Your task to perform on an android device: add a contact in the contacts app Image 0: 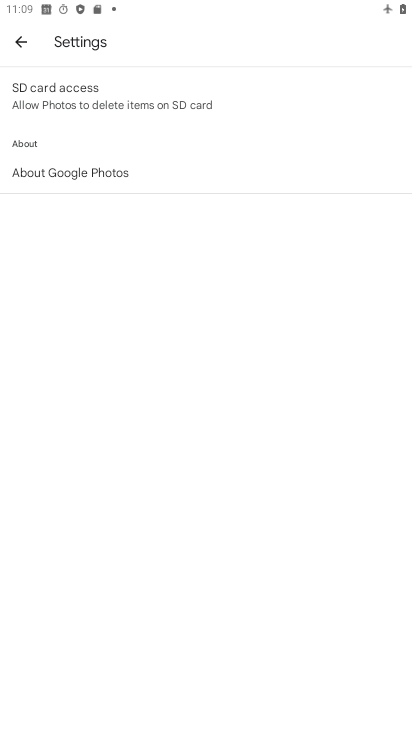
Step 0: press home button
Your task to perform on an android device: add a contact in the contacts app Image 1: 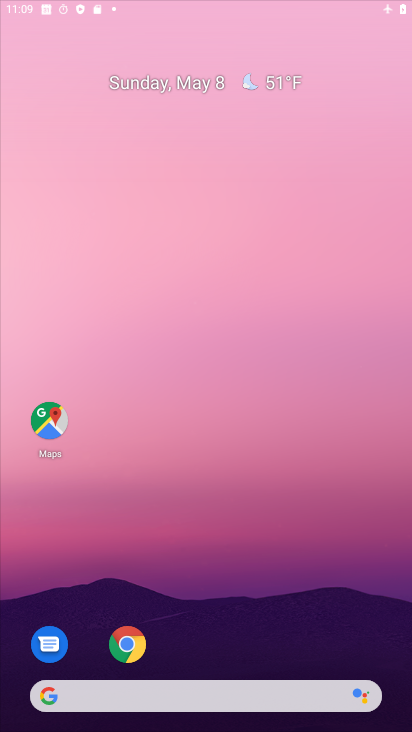
Step 1: drag from (172, 670) to (273, 313)
Your task to perform on an android device: add a contact in the contacts app Image 2: 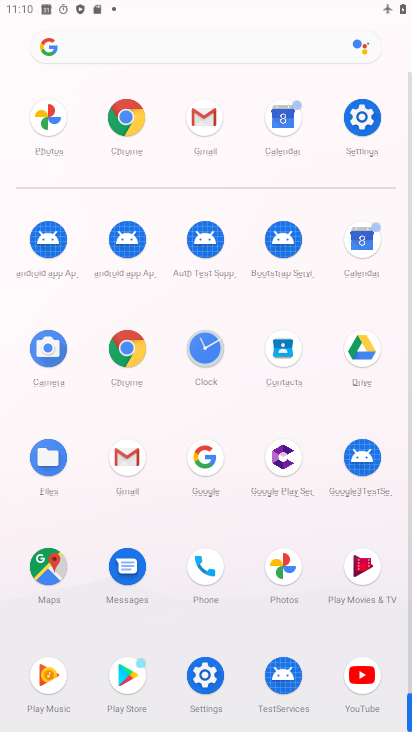
Step 2: click (286, 347)
Your task to perform on an android device: add a contact in the contacts app Image 3: 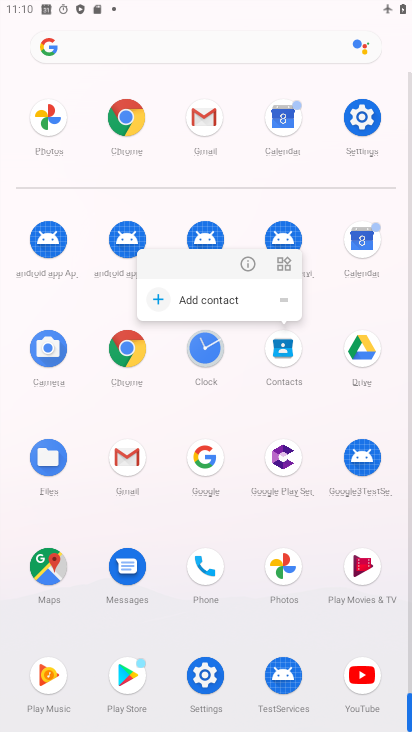
Step 3: click (241, 257)
Your task to perform on an android device: add a contact in the contacts app Image 4: 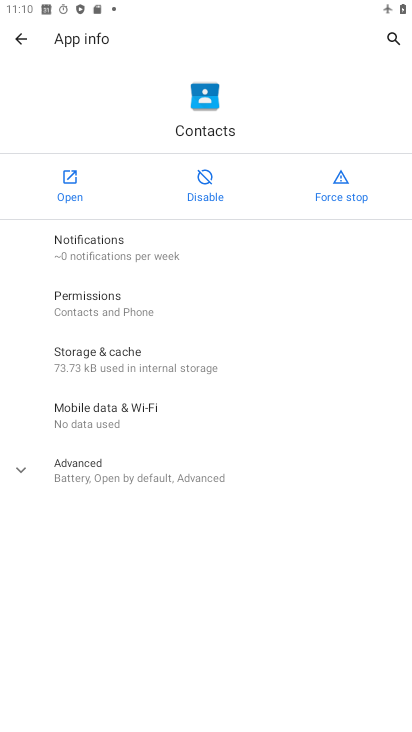
Step 4: click (78, 180)
Your task to perform on an android device: add a contact in the contacts app Image 5: 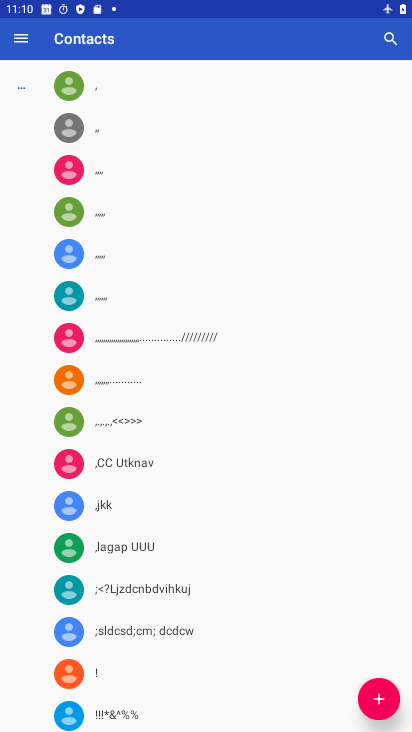
Step 5: click (391, 703)
Your task to perform on an android device: add a contact in the contacts app Image 6: 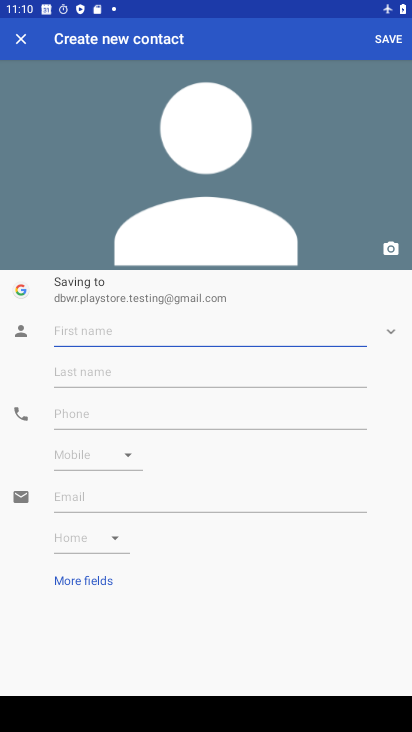
Step 6: type "kmjl"
Your task to perform on an android device: add a contact in the contacts app Image 7: 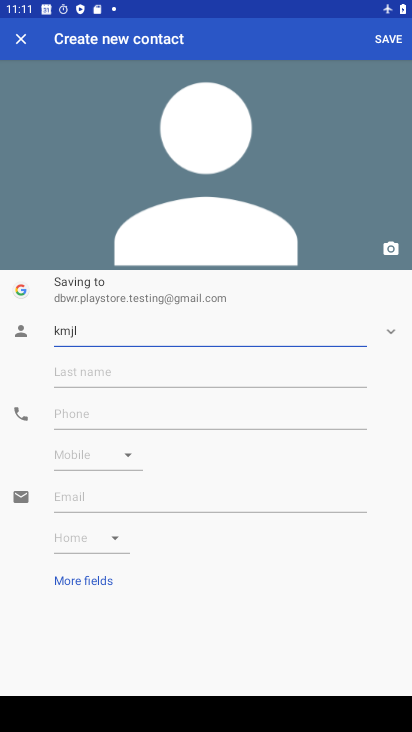
Step 7: click (383, 43)
Your task to perform on an android device: add a contact in the contacts app Image 8: 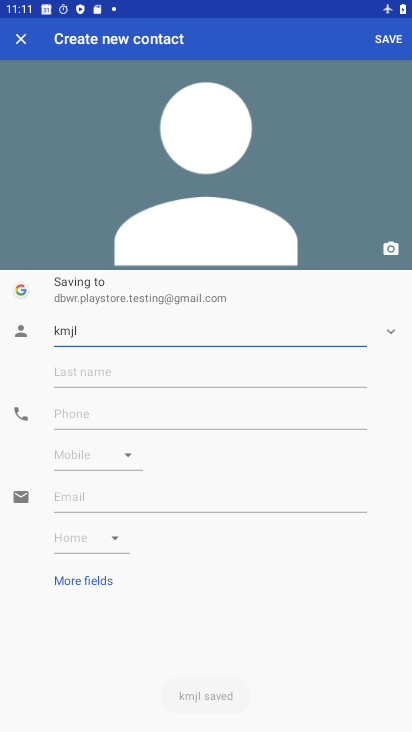
Step 8: task complete